Your task to perform on an android device: Search for sushi restaurants on Maps Image 0: 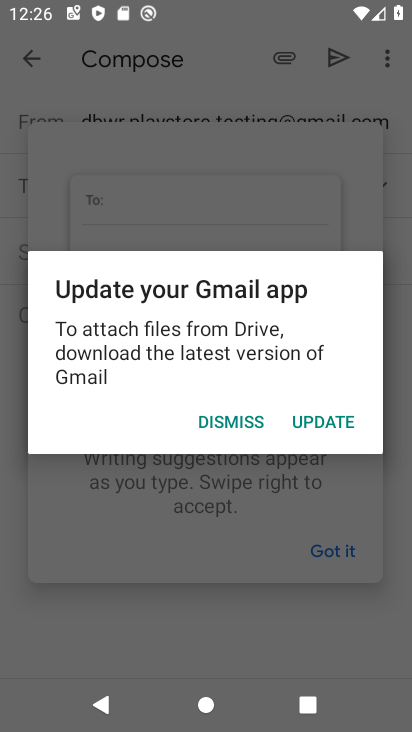
Step 0: click (51, 343)
Your task to perform on an android device: Search for sushi restaurants on Maps Image 1: 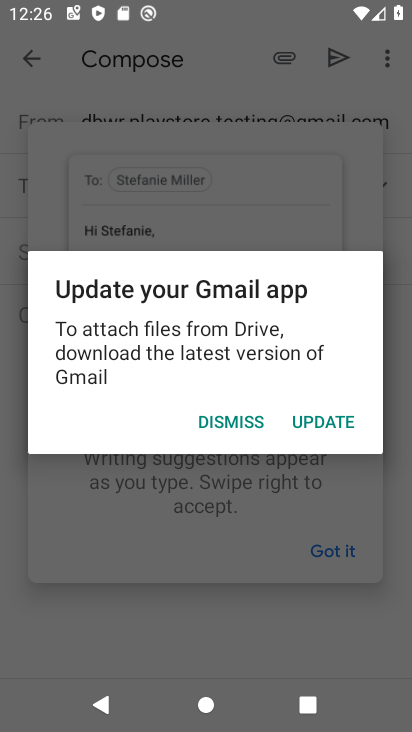
Step 1: press home button
Your task to perform on an android device: Search for sushi restaurants on Maps Image 2: 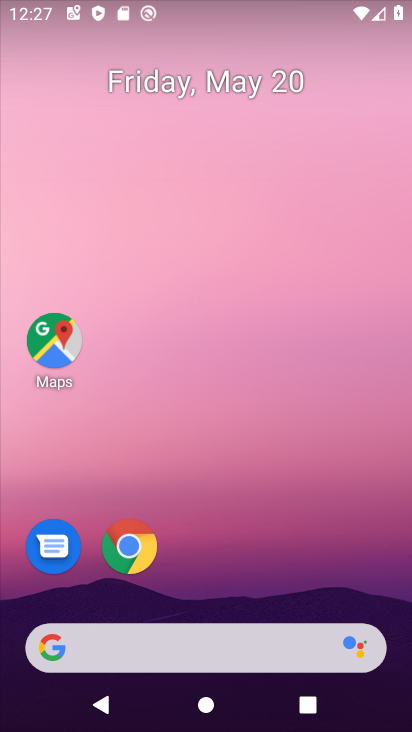
Step 2: click (60, 341)
Your task to perform on an android device: Search for sushi restaurants on Maps Image 3: 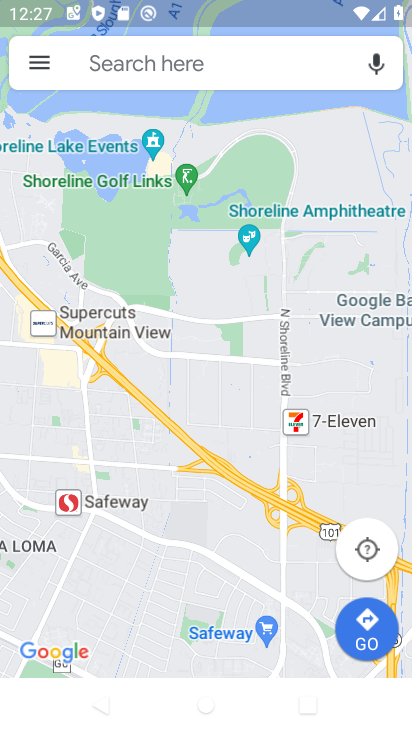
Step 3: click (243, 65)
Your task to perform on an android device: Search for sushi restaurants on Maps Image 4: 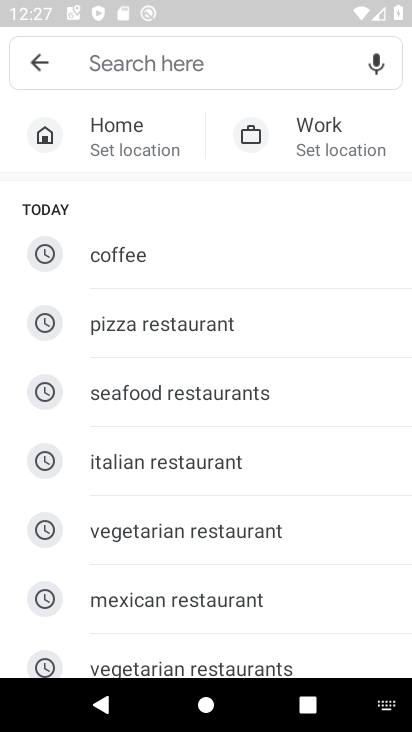
Step 4: click (227, 444)
Your task to perform on an android device: Search for sushi restaurants on Maps Image 5: 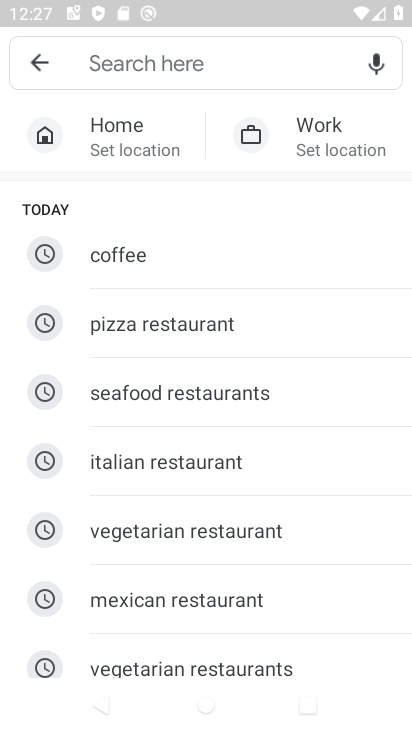
Step 5: click (239, 56)
Your task to perform on an android device: Search for sushi restaurants on Maps Image 6: 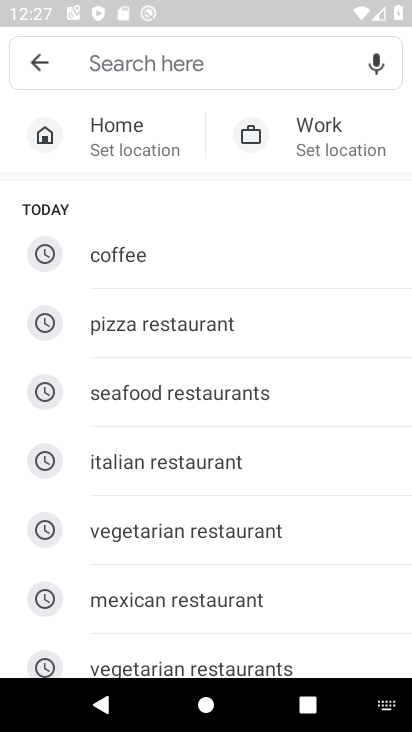
Step 6: type "sushi restaurants"
Your task to perform on an android device: Search for sushi restaurants on Maps Image 7: 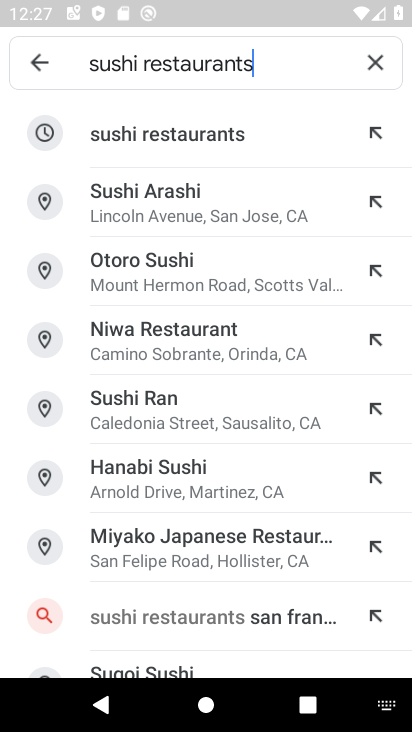
Step 7: click (216, 138)
Your task to perform on an android device: Search for sushi restaurants on Maps Image 8: 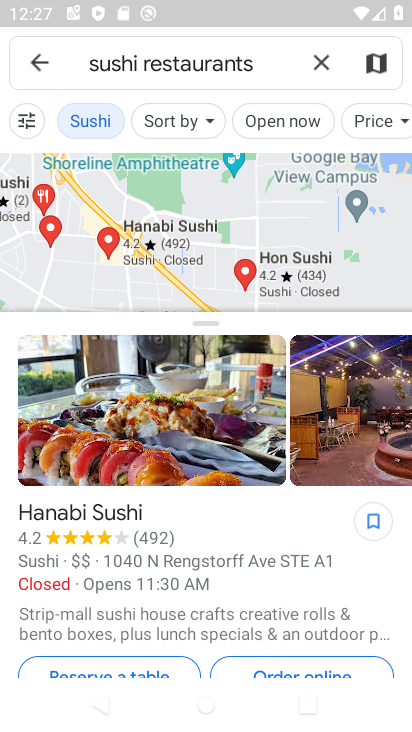
Step 8: task complete